Your task to perform on an android device: open app "Firefox Browser" (install if not already installed), go to login, and select forgot password Image 0: 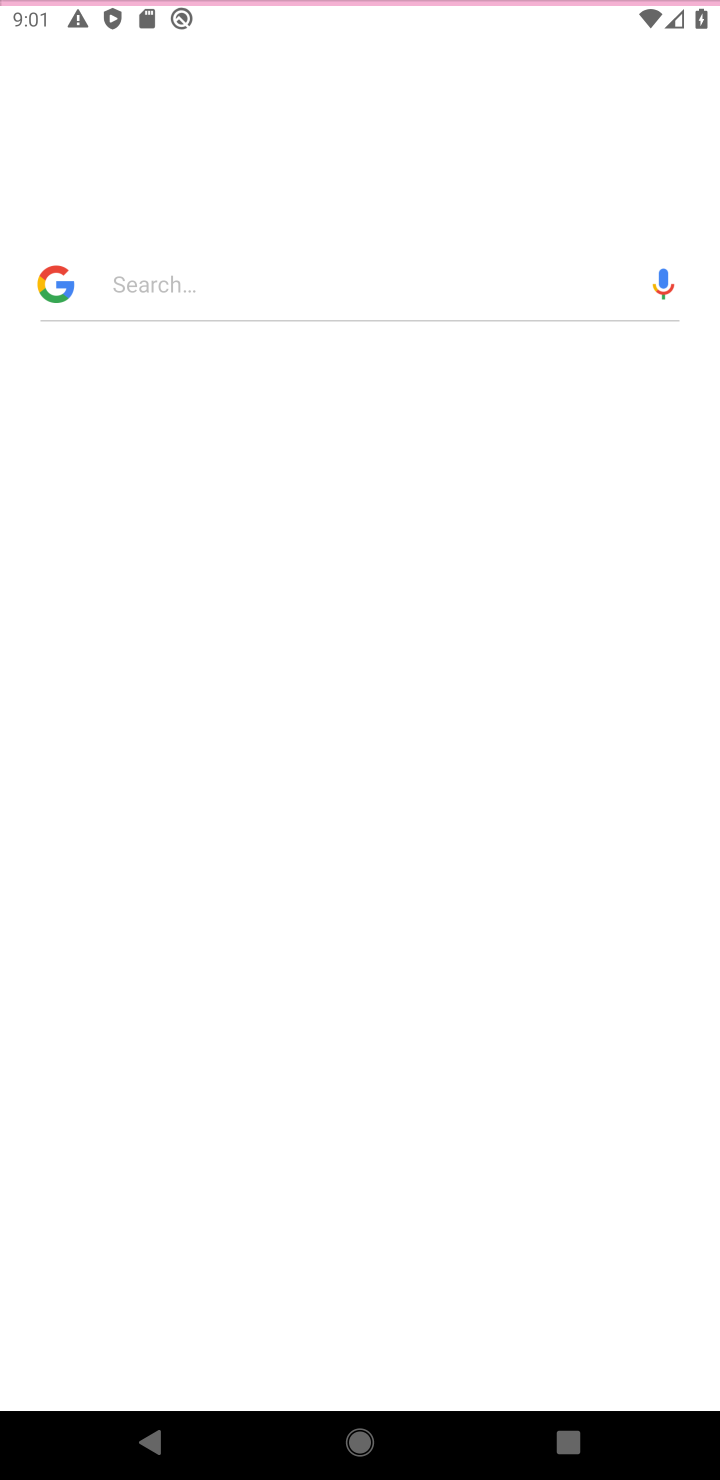
Step 0: press back button
Your task to perform on an android device: open app "Firefox Browser" (install if not already installed), go to login, and select forgot password Image 1: 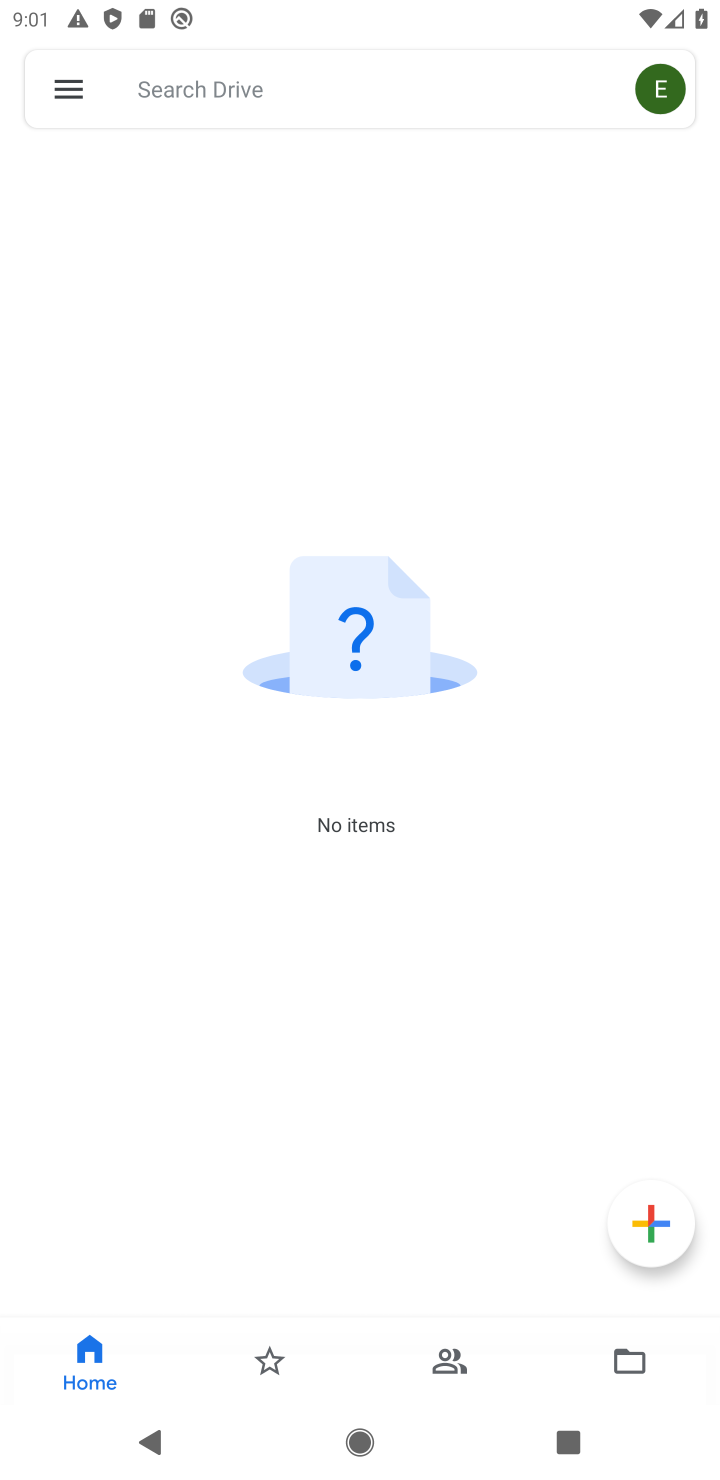
Step 1: press back button
Your task to perform on an android device: open app "Firefox Browser" (install if not already installed), go to login, and select forgot password Image 2: 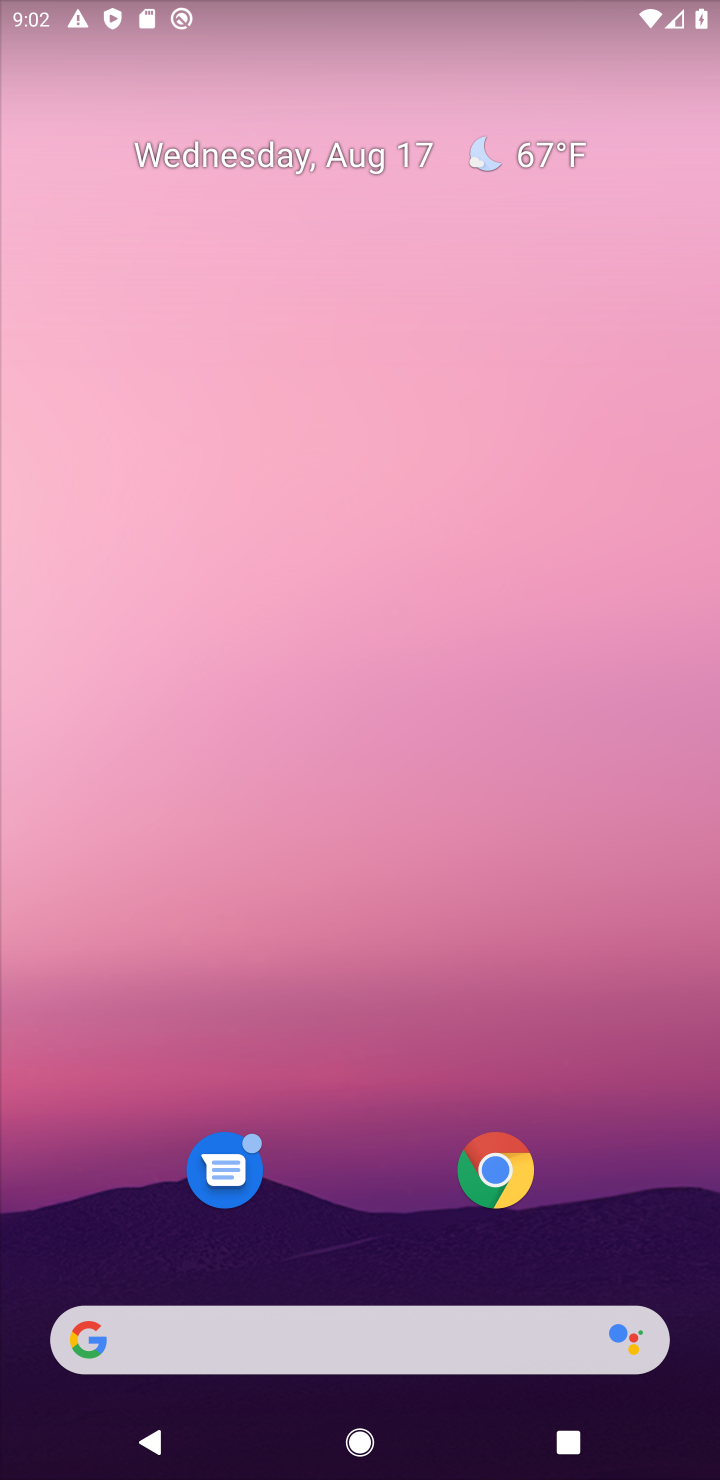
Step 2: drag from (385, 1304) to (442, 116)
Your task to perform on an android device: open app "Firefox Browser" (install if not already installed), go to login, and select forgot password Image 3: 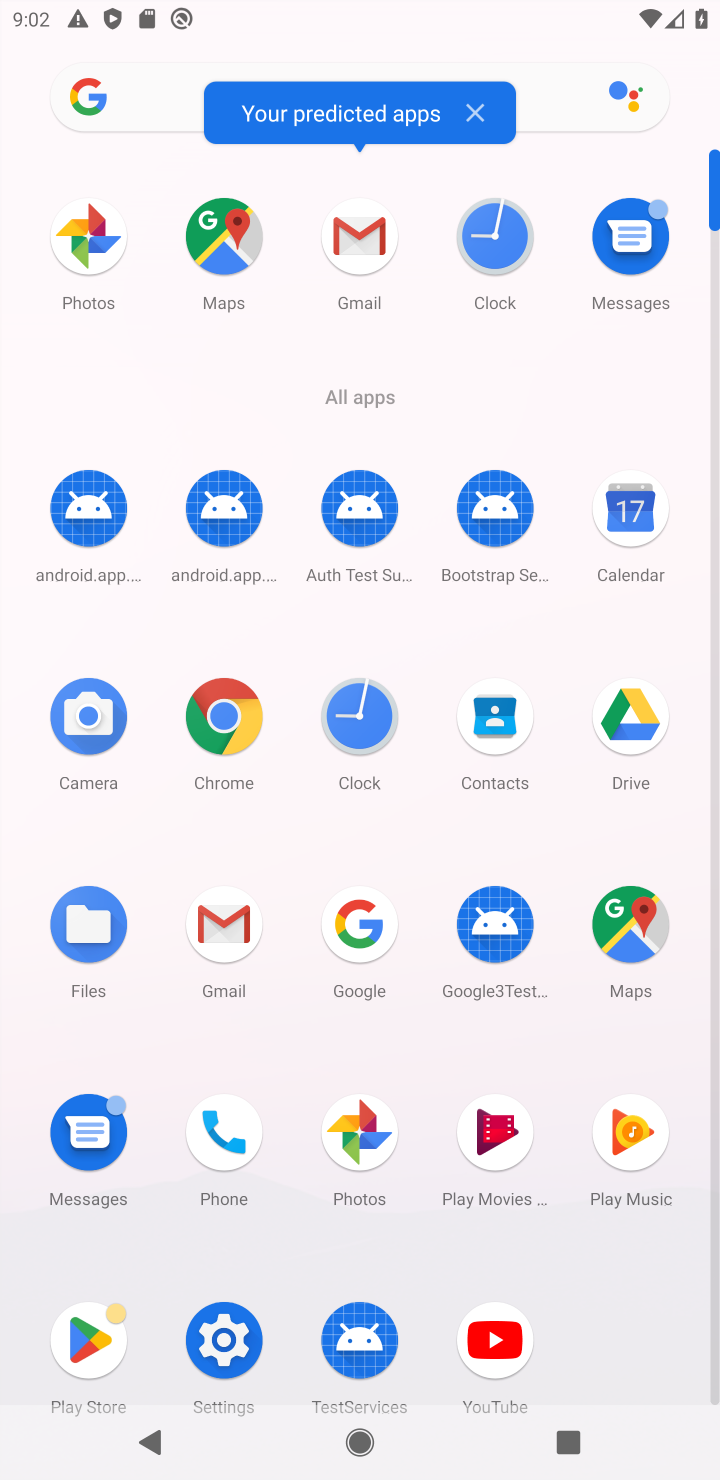
Step 3: click (75, 1339)
Your task to perform on an android device: open app "Firefox Browser" (install if not already installed), go to login, and select forgot password Image 4: 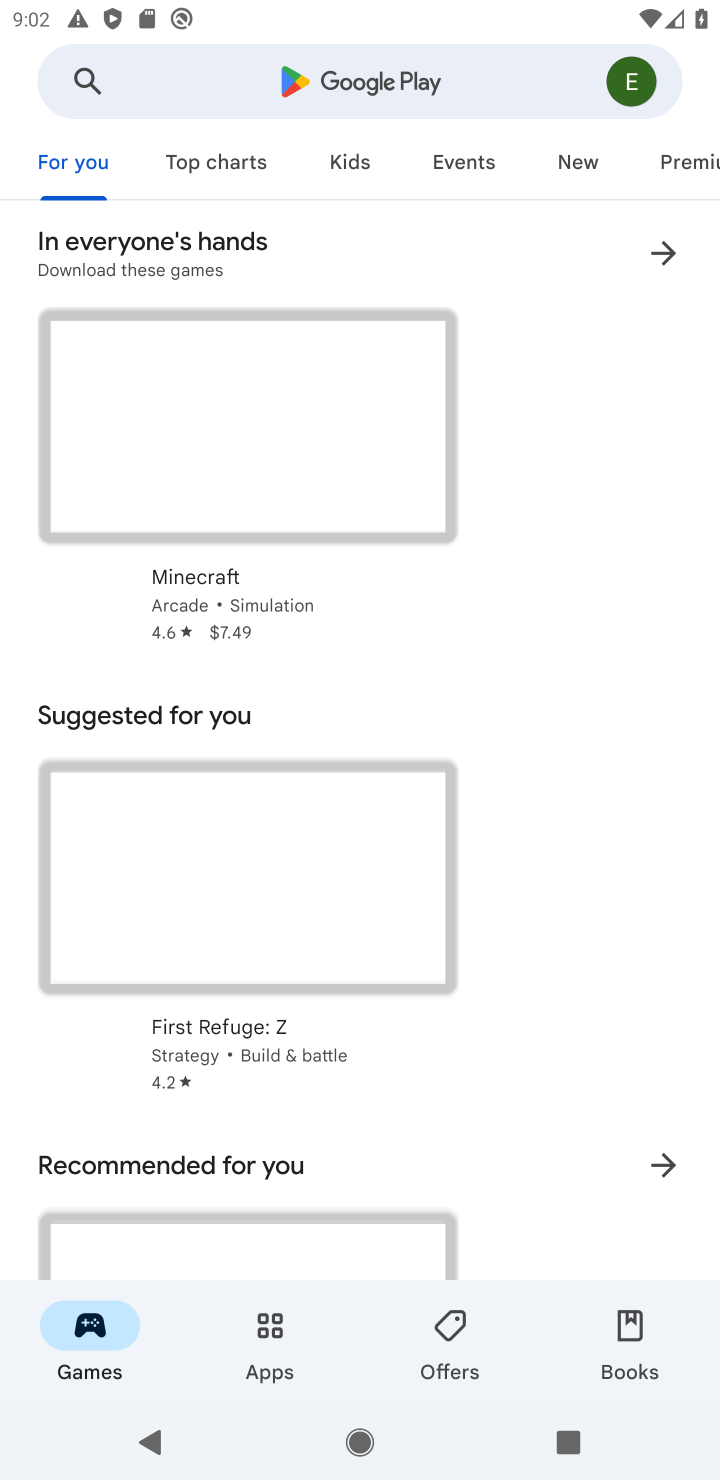
Step 4: click (331, 94)
Your task to perform on an android device: open app "Firefox Browser" (install if not already installed), go to login, and select forgot password Image 5: 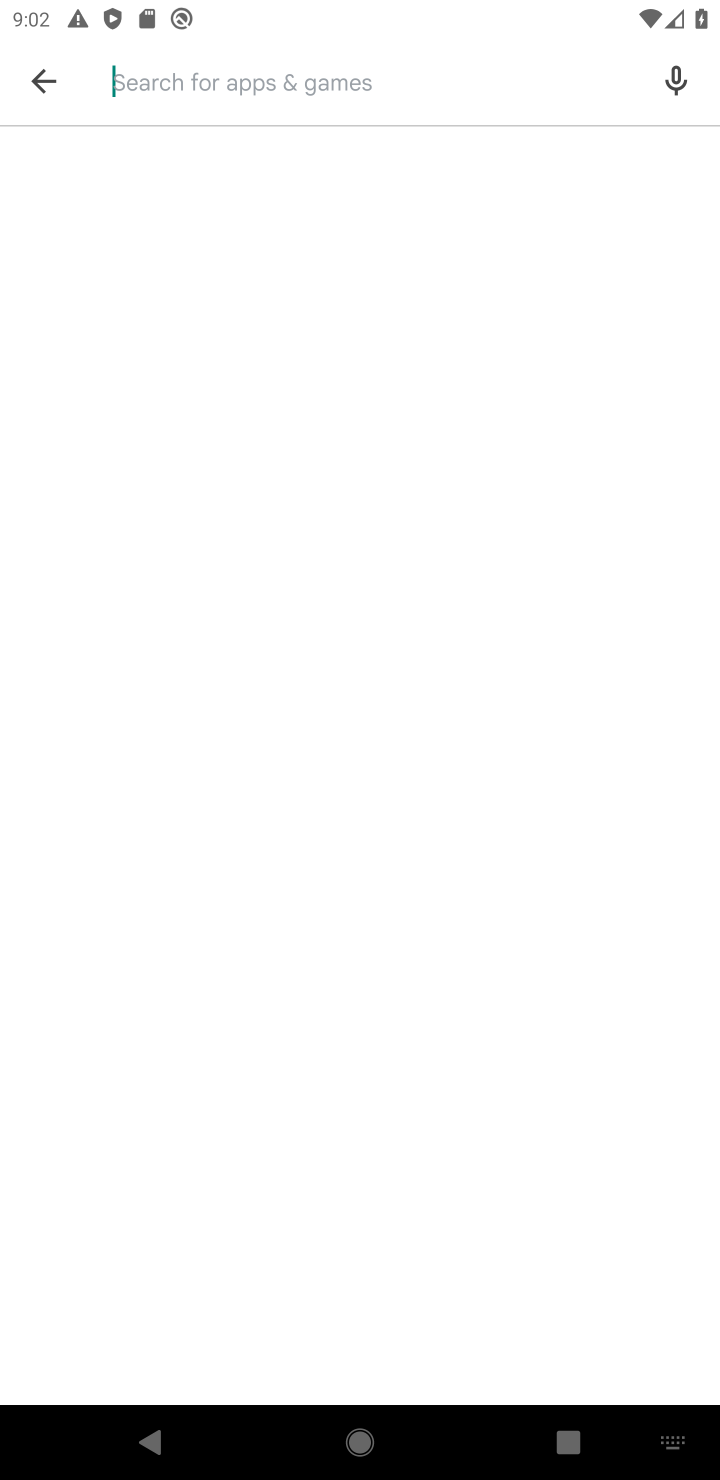
Step 5: type "Firefox Browser"
Your task to perform on an android device: open app "Firefox Browser" (install if not already installed), go to login, and select forgot password Image 6: 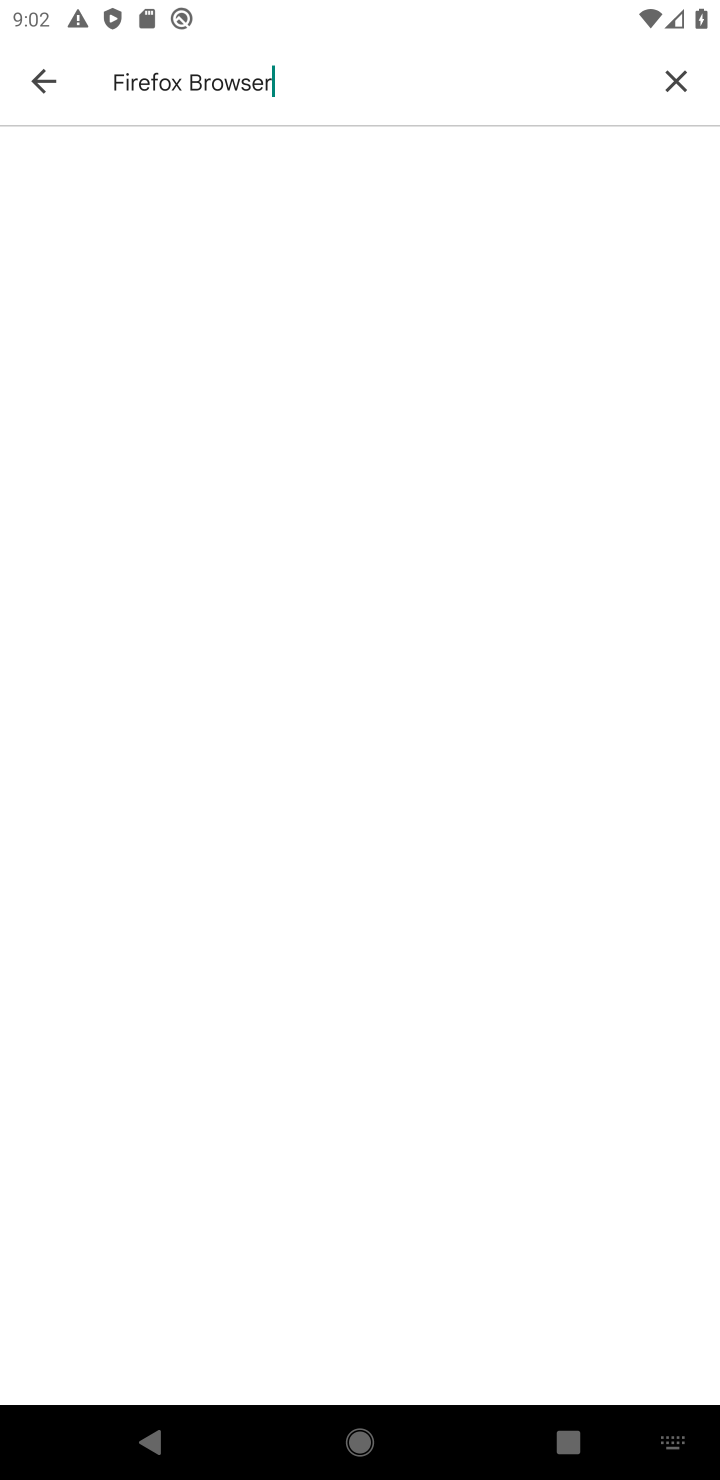
Step 6: type ""
Your task to perform on an android device: open app "Firefox Browser" (install if not already installed), go to login, and select forgot password Image 7: 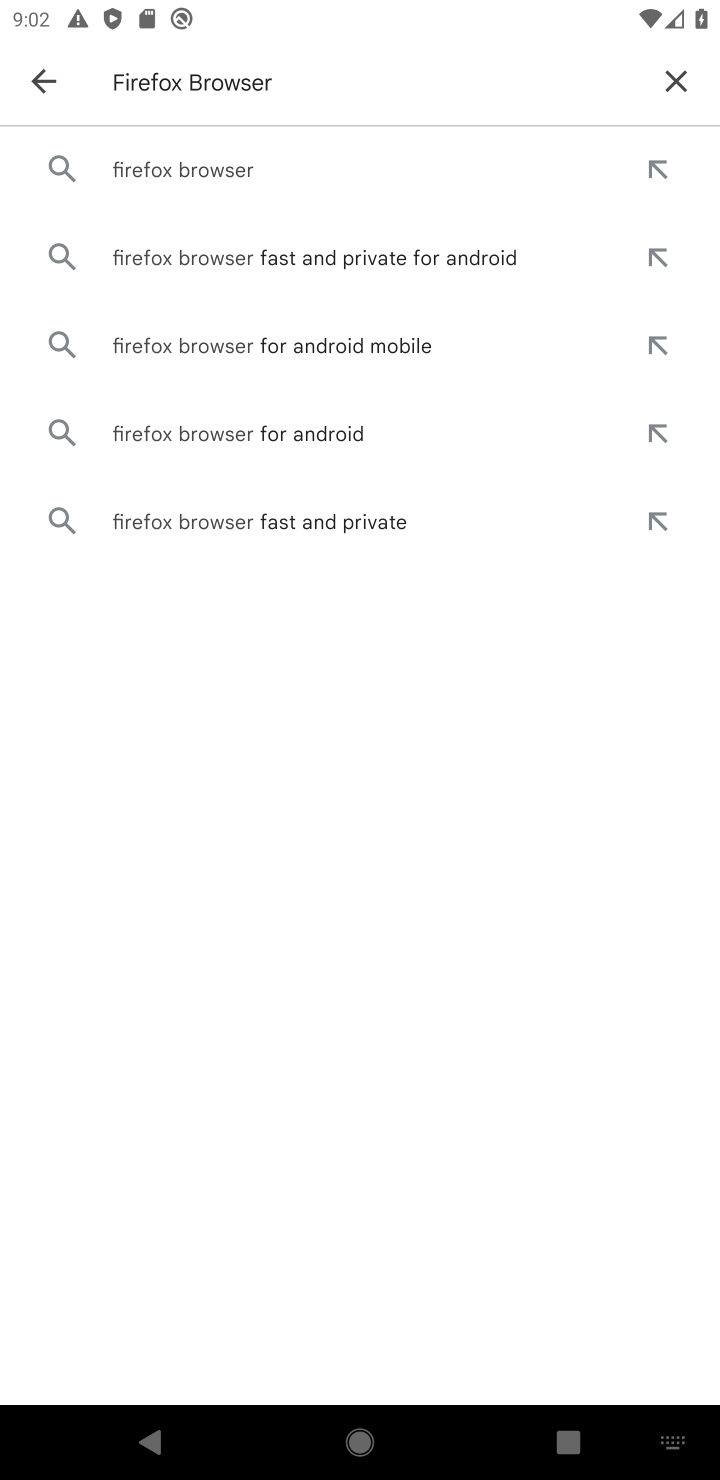
Step 7: click (176, 170)
Your task to perform on an android device: open app "Firefox Browser" (install if not already installed), go to login, and select forgot password Image 8: 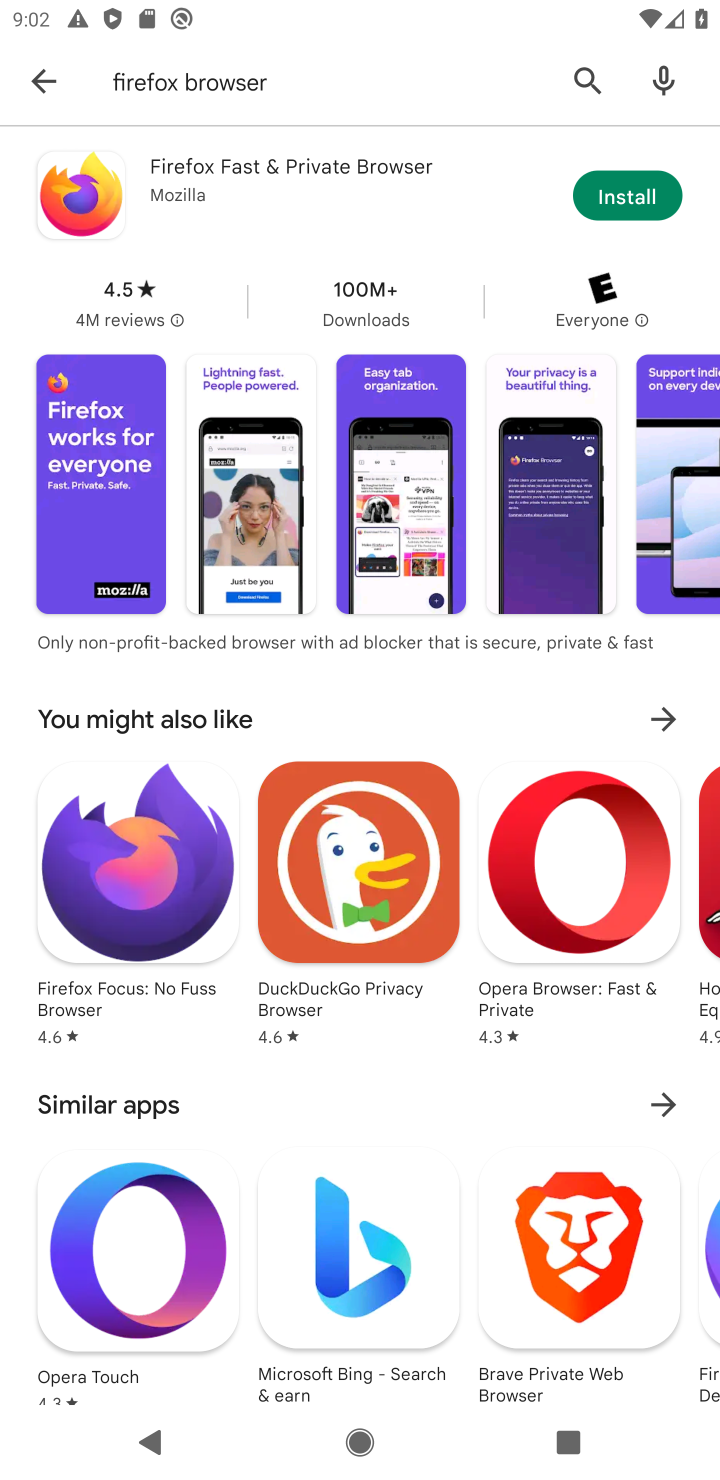
Step 8: click (609, 193)
Your task to perform on an android device: open app "Firefox Browser" (install if not already installed), go to login, and select forgot password Image 9: 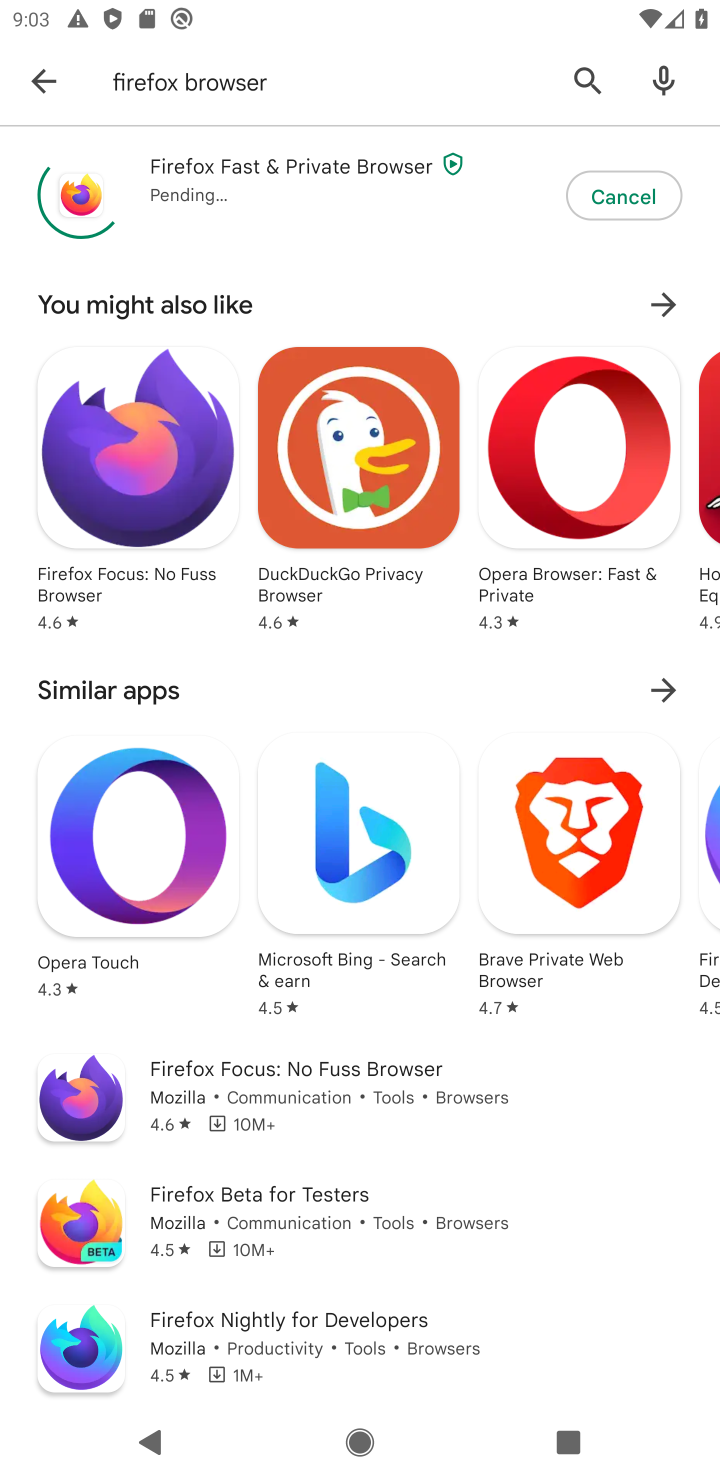
Step 9: click (159, 148)
Your task to perform on an android device: open app "Firefox Browser" (install if not already installed), go to login, and select forgot password Image 10: 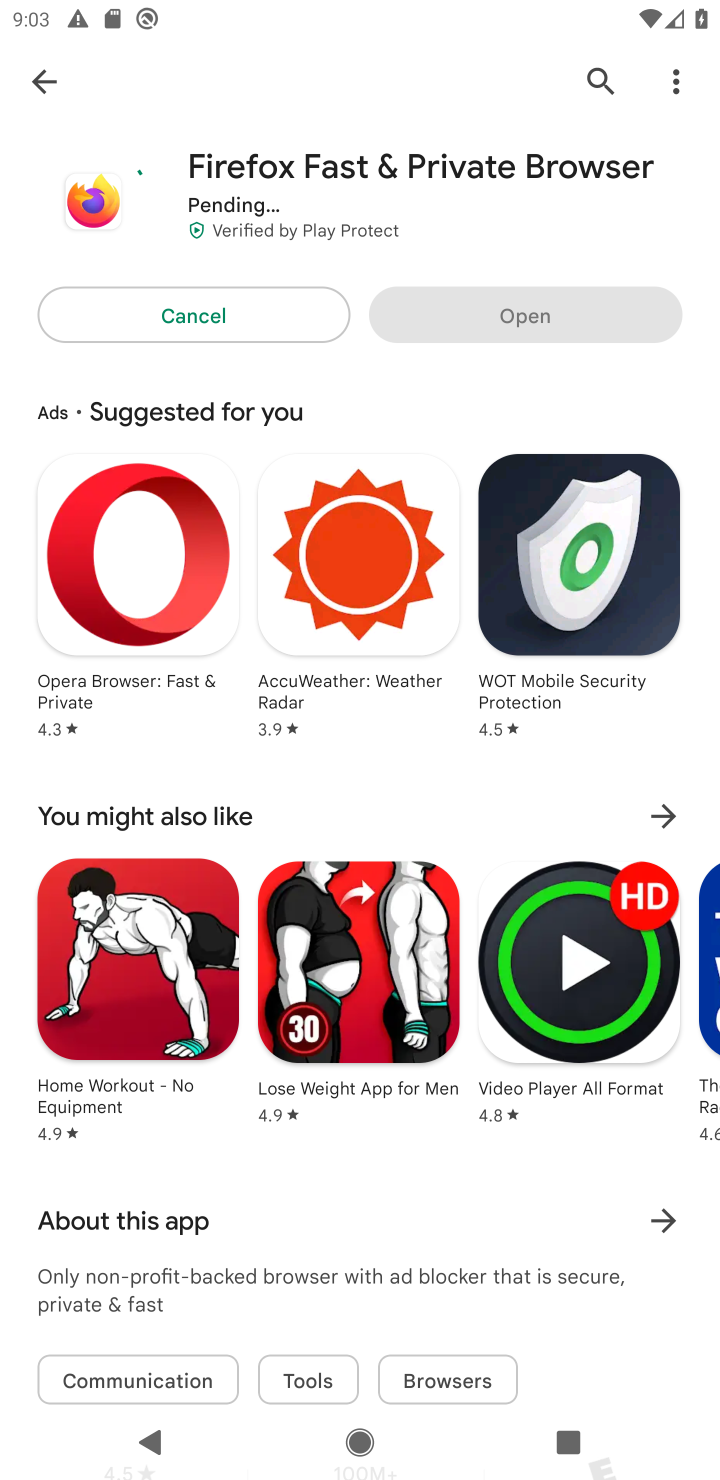
Step 10: click (52, 75)
Your task to perform on an android device: open app "Firefox Browser" (install if not already installed), go to login, and select forgot password Image 11: 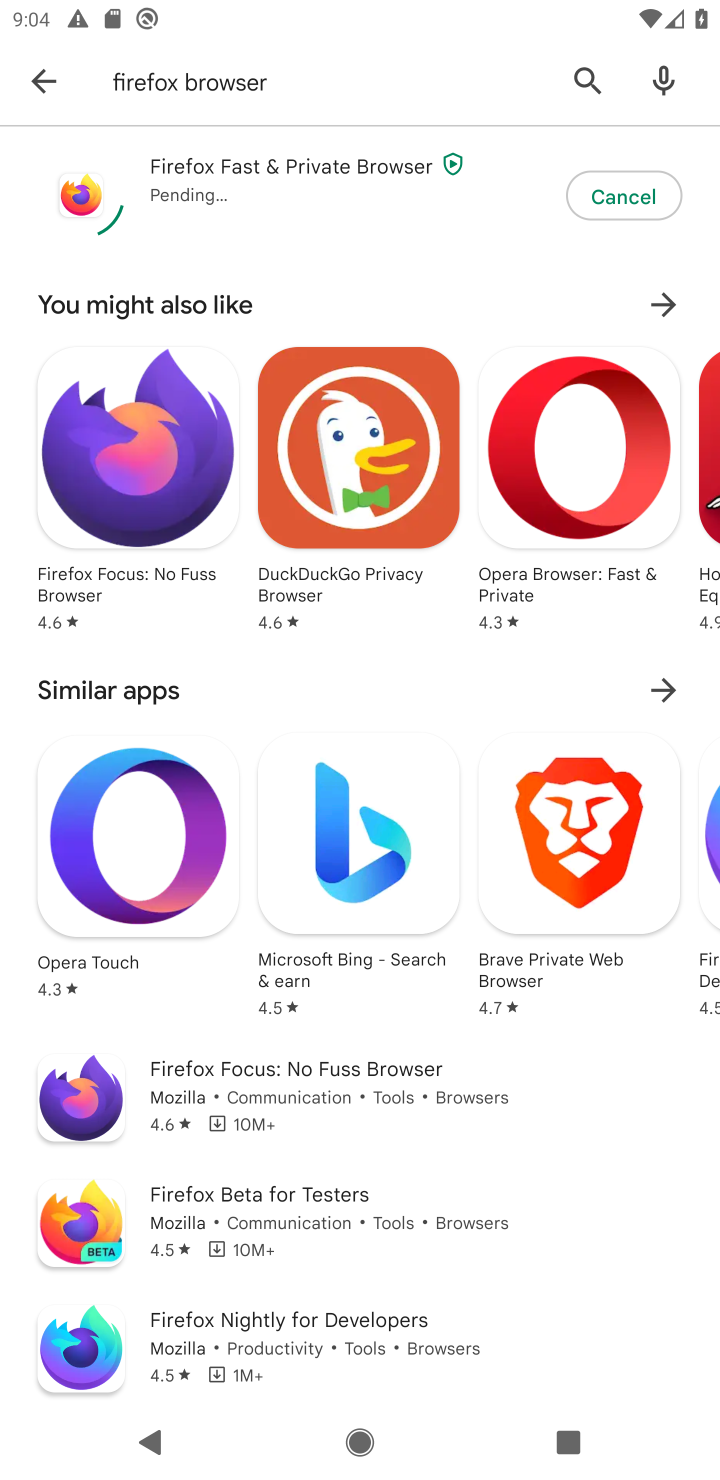
Step 11: click (52, 75)
Your task to perform on an android device: open app "Firefox Browser" (install if not already installed), go to login, and select forgot password Image 12: 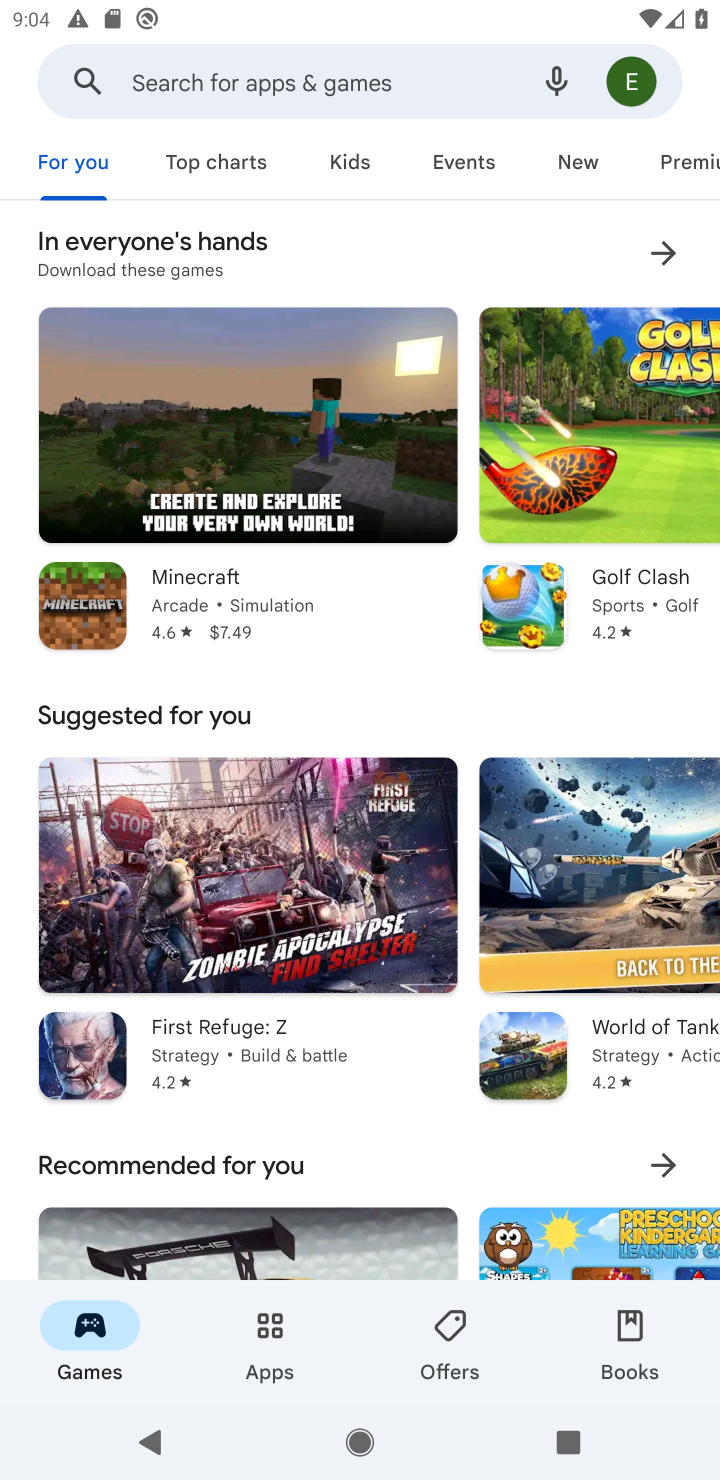
Step 12: click (645, 96)
Your task to perform on an android device: open app "Firefox Browser" (install if not already installed), go to login, and select forgot password Image 13: 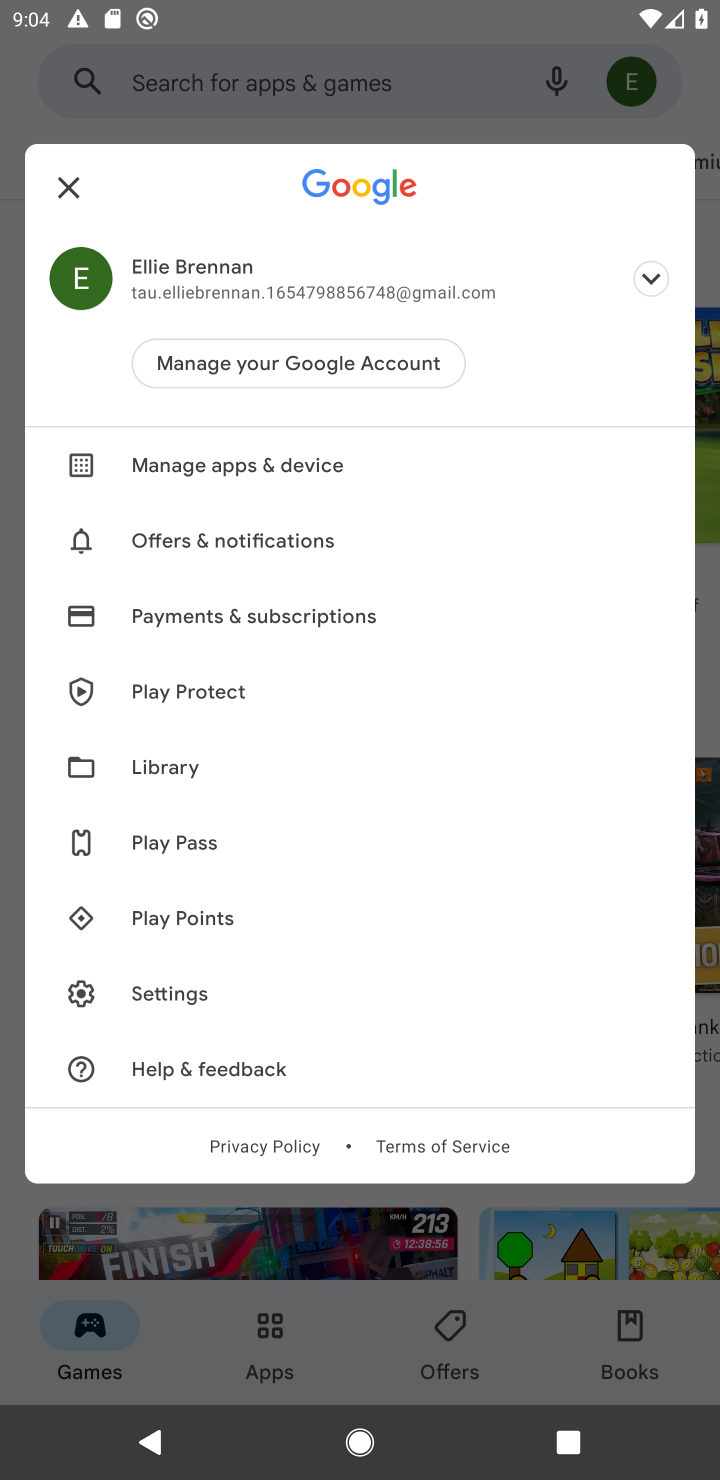
Step 13: click (171, 486)
Your task to perform on an android device: open app "Firefox Browser" (install if not already installed), go to login, and select forgot password Image 14: 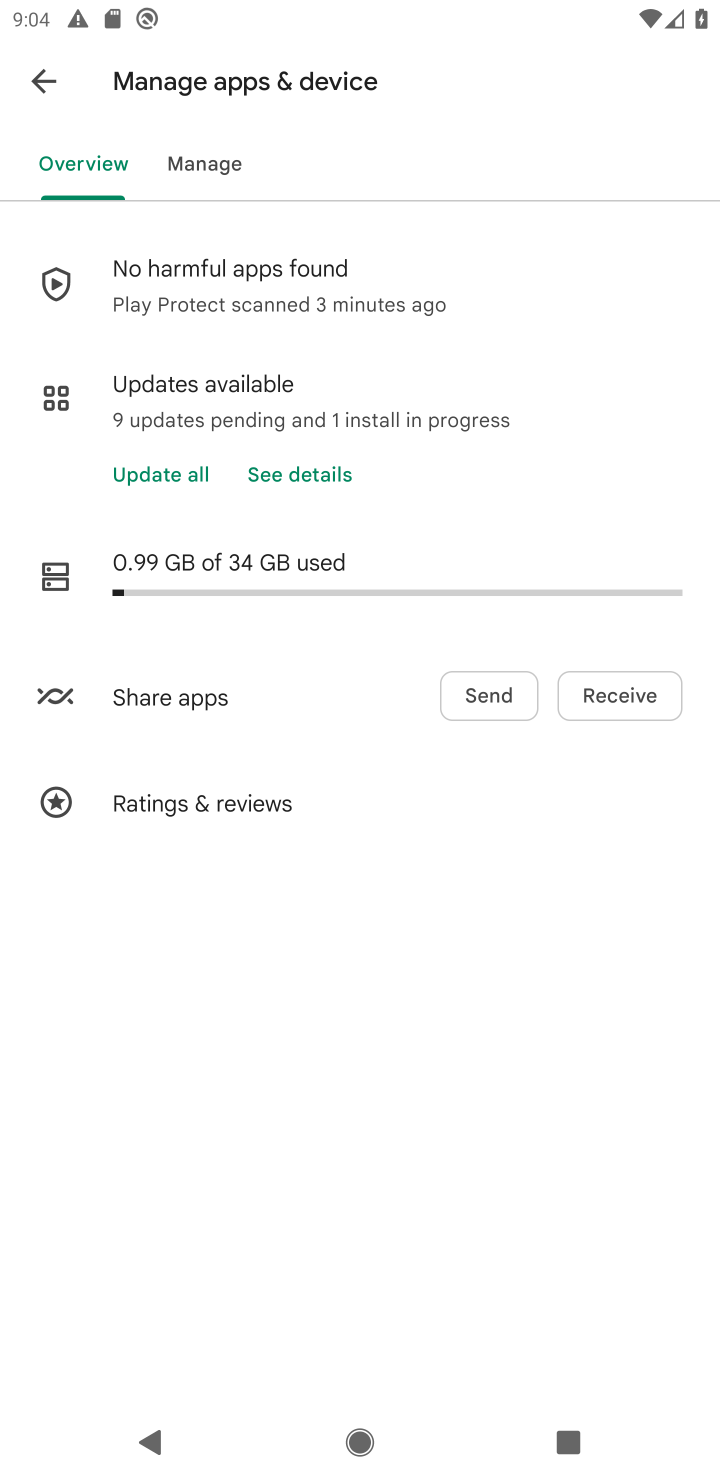
Step 14: click (167, 419)
Your task to perform on an android device: open app "Firefox Browser" (install if not already installed), go to login, and select forgot password Image 15: 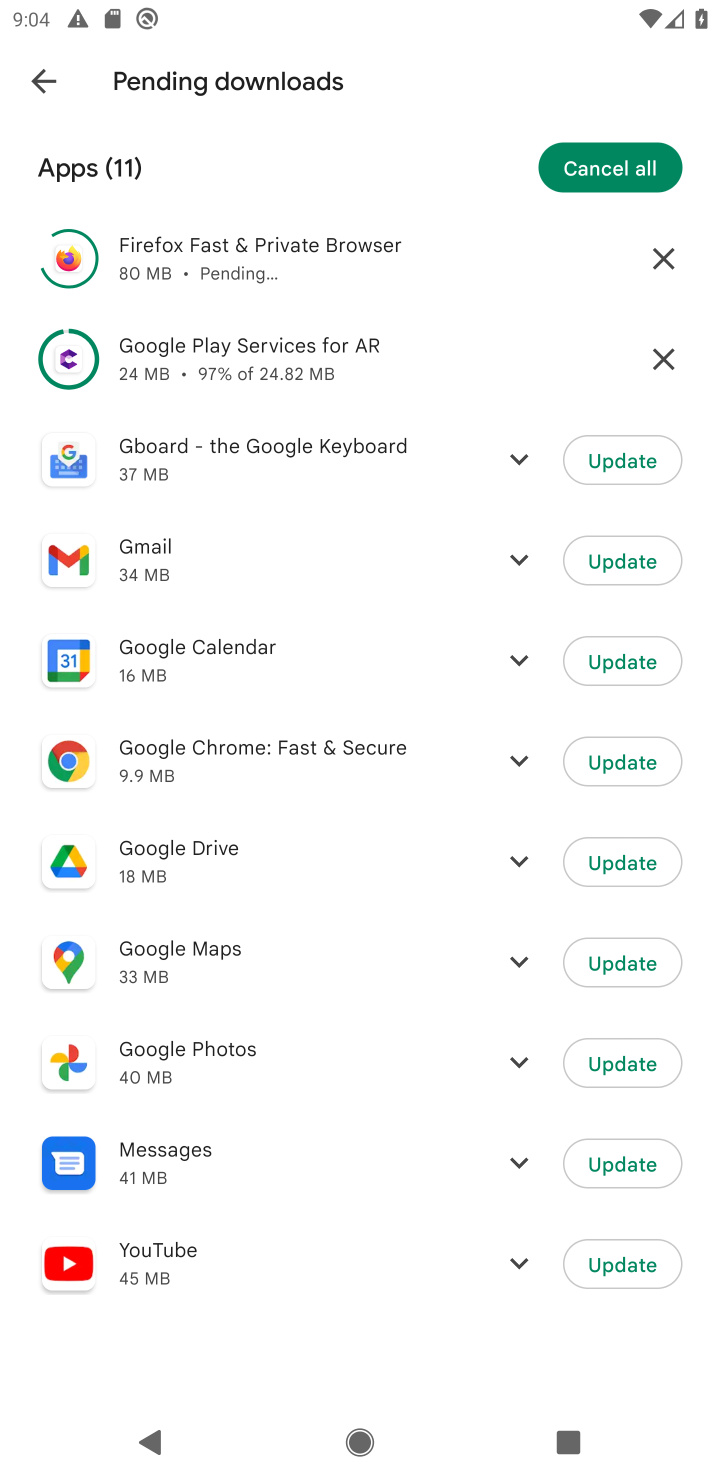
Step 15: drag from (226, 368) to (288, 1091)
Your task to perform on an android device: open app "Firefox Browser" (install if not already installed), go to login, and select forgot password Image 16: 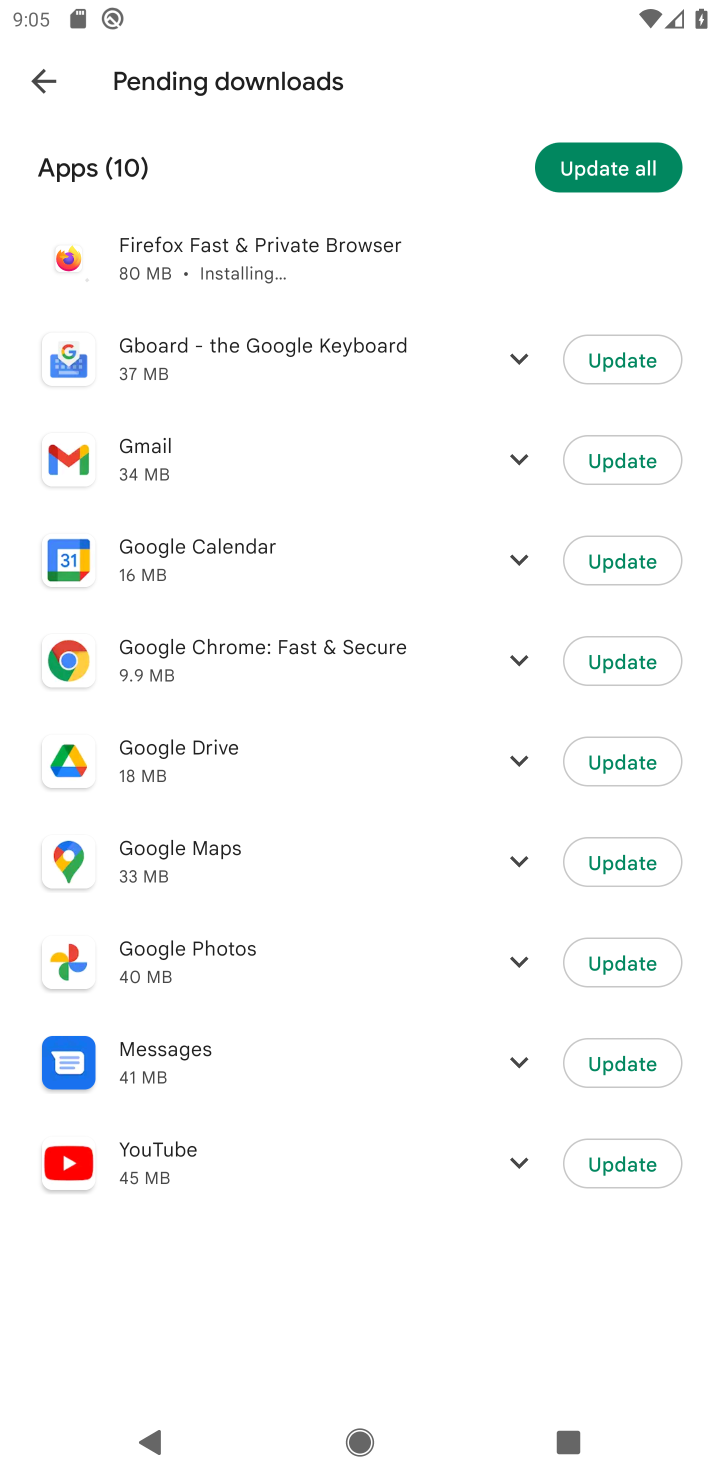
Step 16: click (102, 238)
Your task to perform on an android device: open app "Firefox Browser" (install if not already installed), go to login, and select forgot password Image 17: 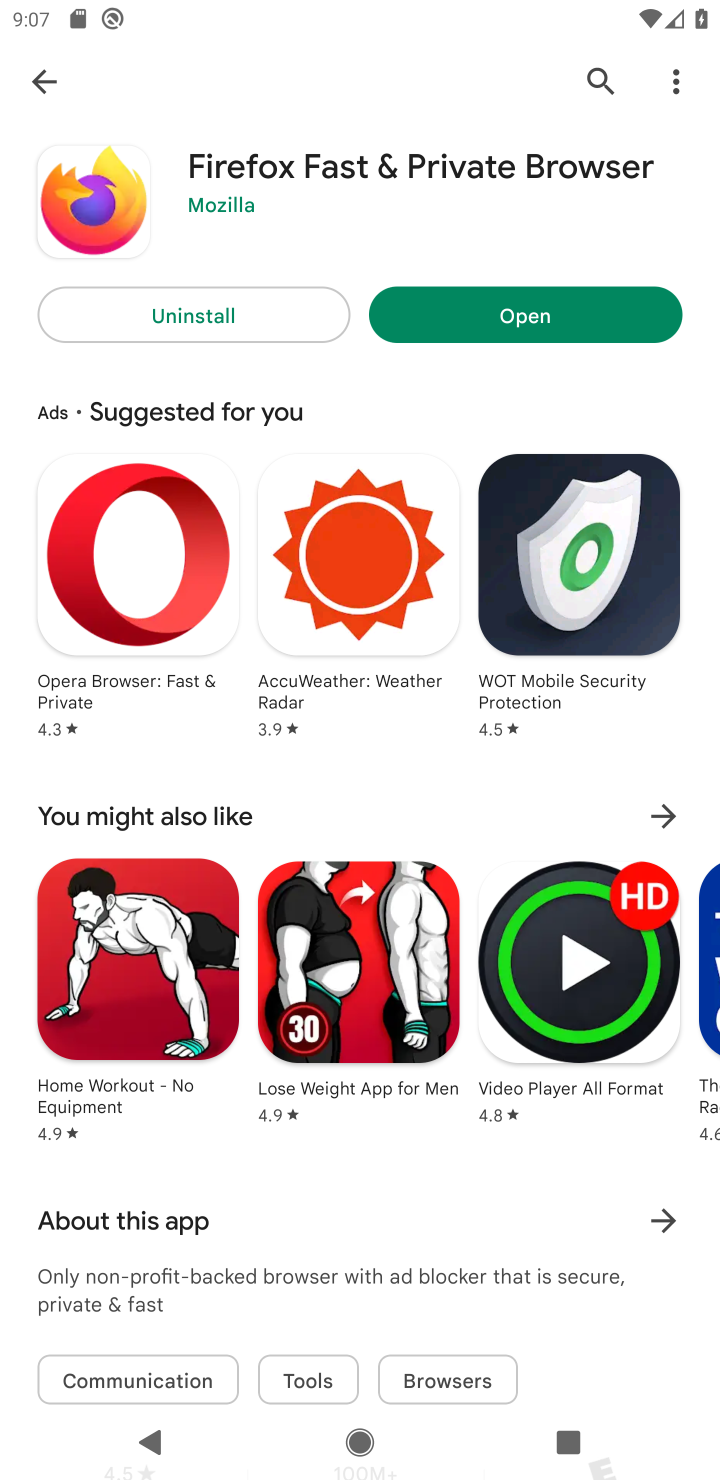
Step 17: click (515, 325)
Your task to perform on an android device: open app "Firefox Browser" (install if not already installed), go to login, and select forgot password Image 18: 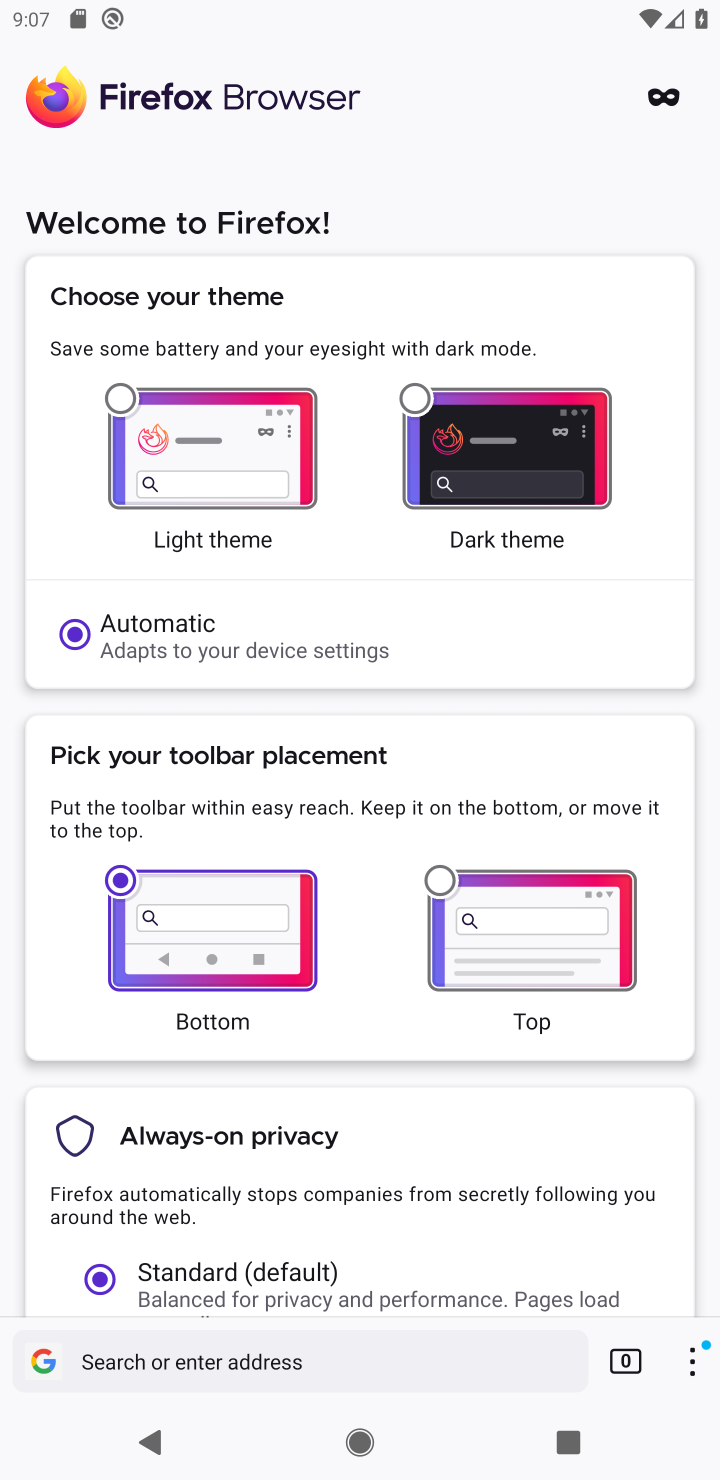
Step 18: task complete